Your task to perform on an android device: install app "ColorNote Notepad Notes" Image 0: 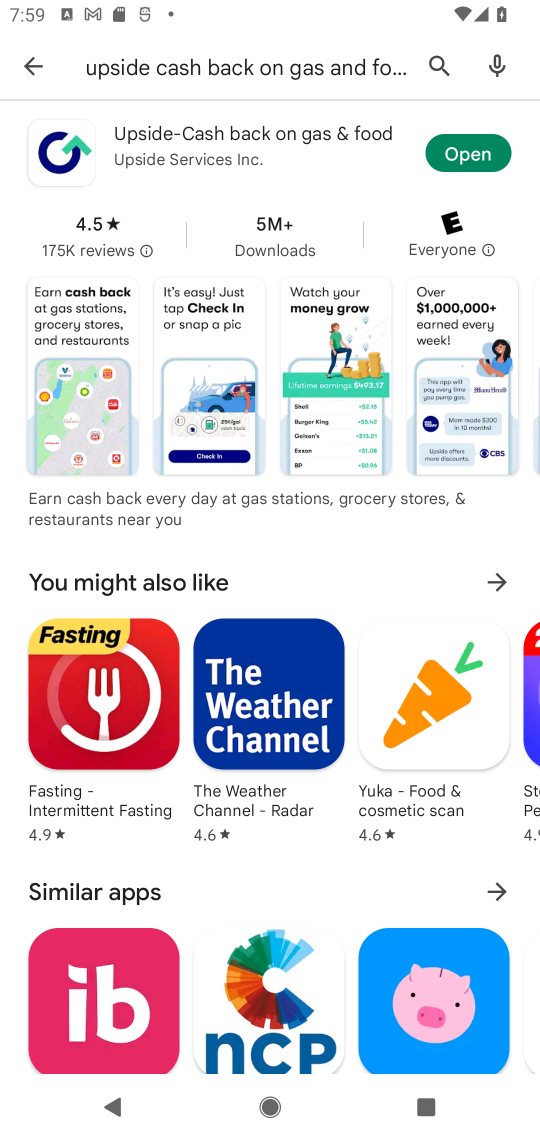
Step 0: click (437, 64)
Your task to perform on an android device: install app "ColorNote Notepad Notes" Image 1: 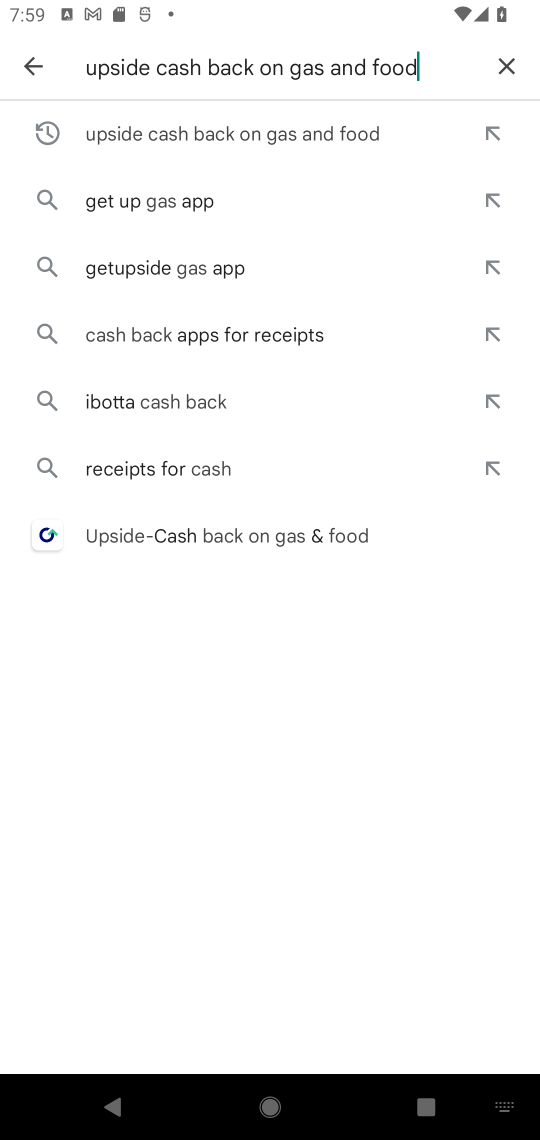
Step 1: click (522, 63)
Your task to perform on an android device: install app "ColorNote Notepad Notes" Image 2: 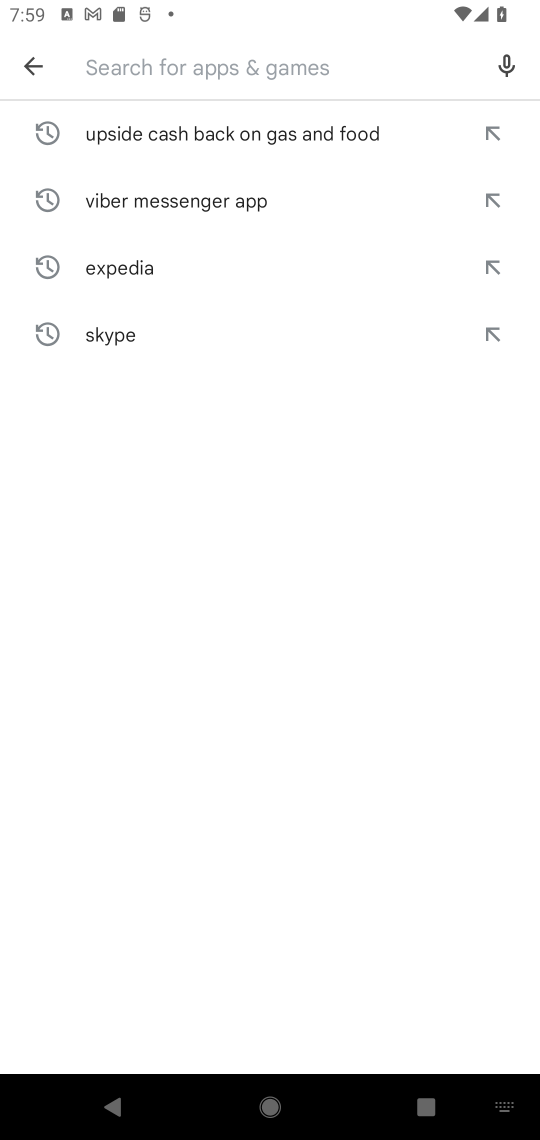
Step 2: click (123, 63)
Your task to perform on an android device: install app "ColorNote Notepad Notes" Image 3: 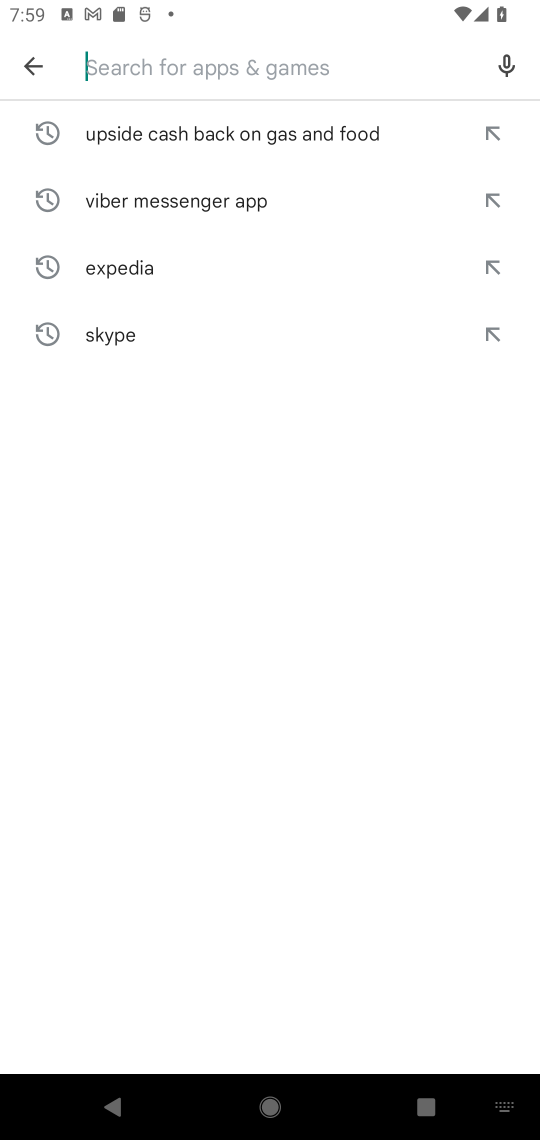
Step 3: type "colournote"
Your task to perform on an android device: install app "ColorNote Notepad Notes" Image 4: 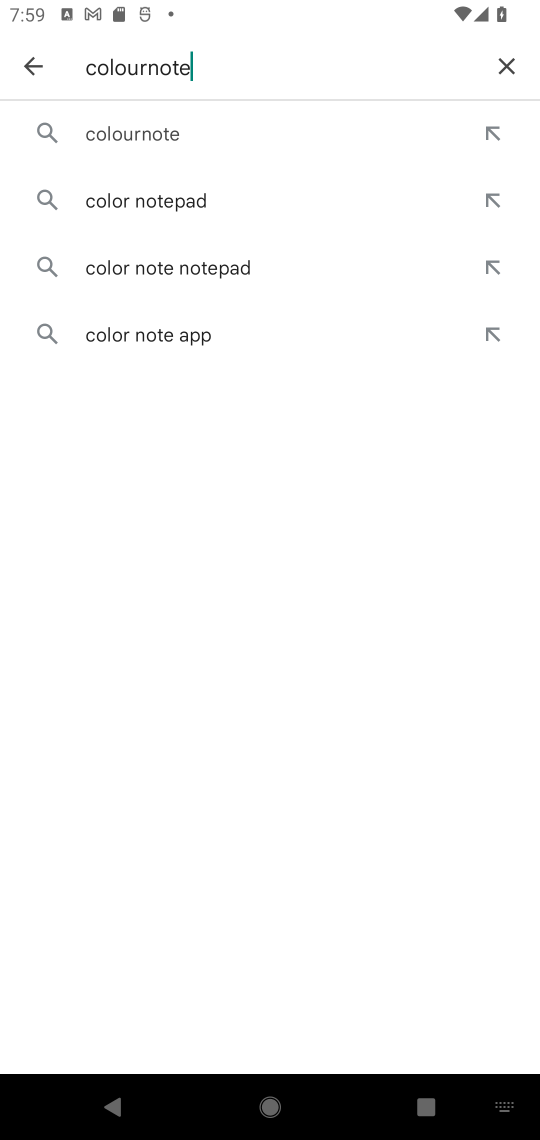
Step 4: click (189, 195)
Your task to perform on an android device: install app "ColorNote Notepad Notes" Image 5: 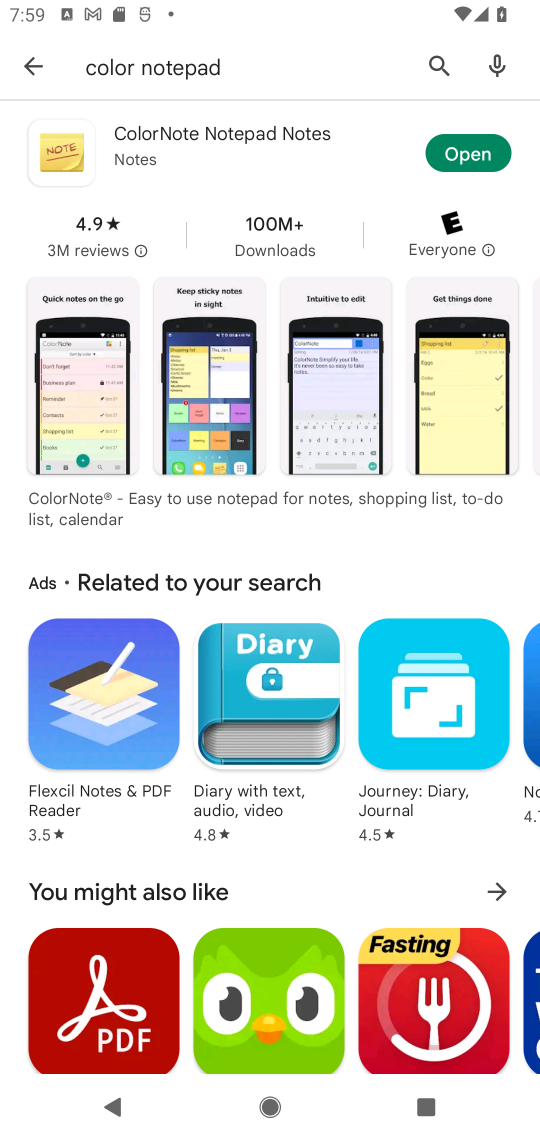
Step 5: click (469, 164)
Your task to perform on an android device: install app "ColorNote Notepad Notes" Image 6: 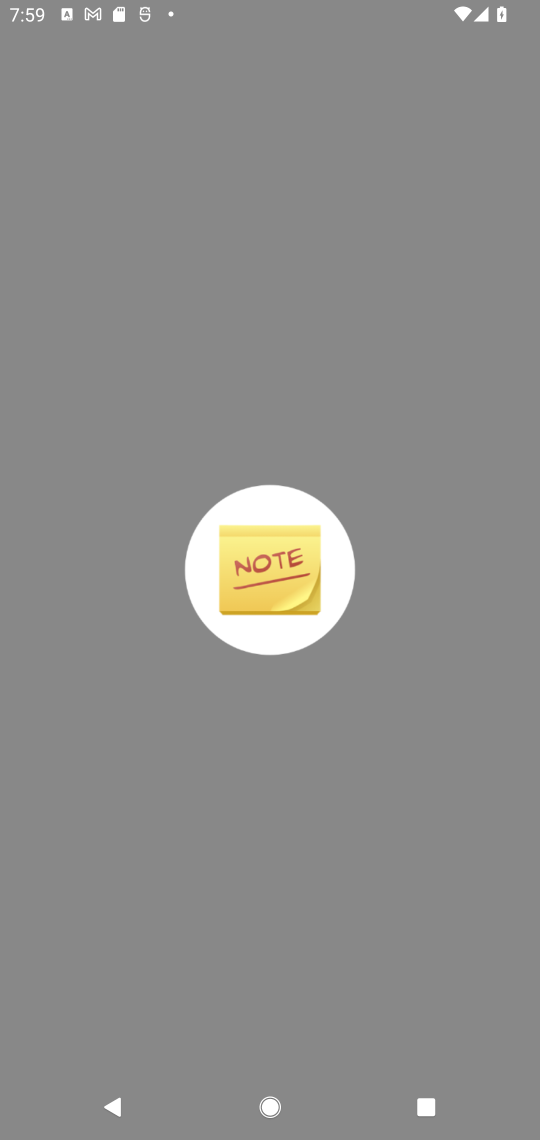
Step 6: task complete